Your task to perform on an android device: turn pop-ups off in chrome Image 0: 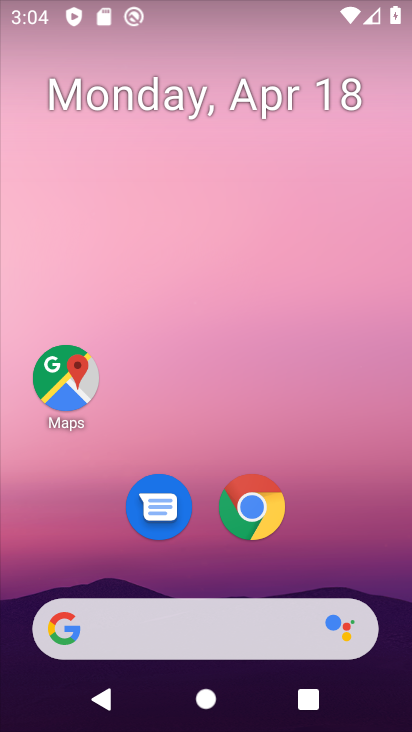
Step 0: click (248, 516)
Your task to perform on an android device: turn pop-ups off in chrome Image 1: 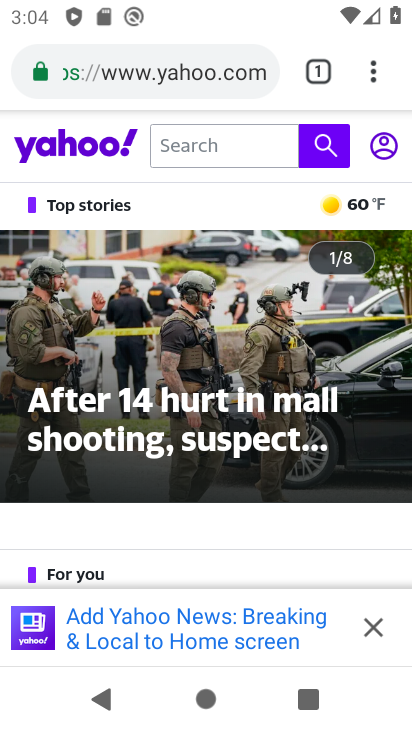
Step 1: click (376, 65)
Your task to perform on an android device: turn pop-ups off in chrome Image 2: 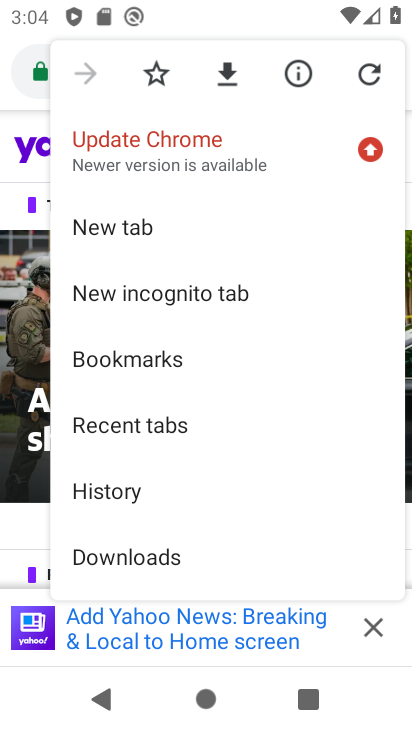
Step 2: drag from (151, 479) to (241, 58)
Your task to perform on an android device: turn pop-ups off in chrome Image 3: 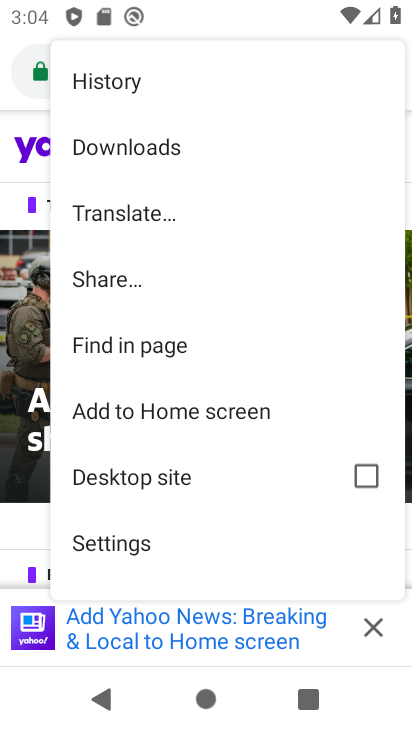
Step 3: click (139, 555)
Your task to perform on an android device: turn pop-ups off in chrome Image 4: 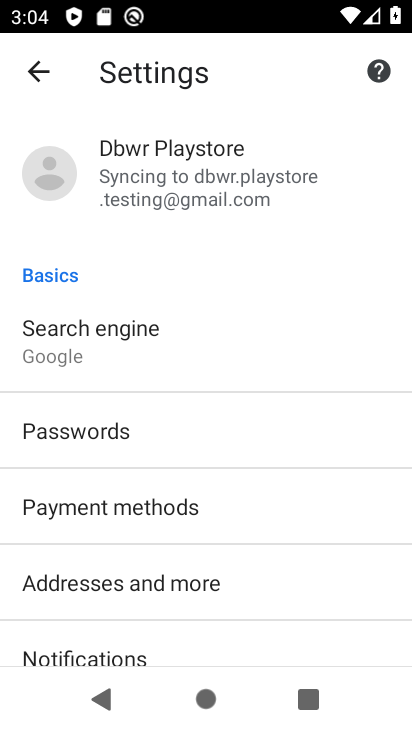
Step 4: drag from (151, 427) to (195, 189)
Your task to perform on an android device: turn pop-ups off in chrome Image 5: 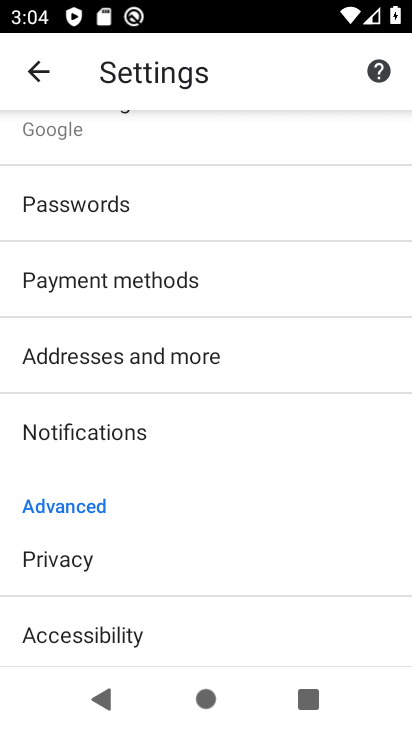
Step 5: drag from (174, 556) to (226, 143)
Your task to perform on an android device: turn pop-ups off in chrome Image 6: 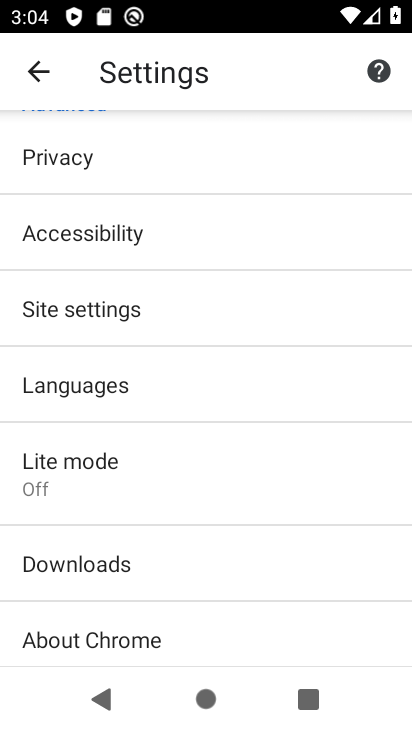
Step 6: drag from (208, 578) to (266, 195)
Your task to perform on an android device: turn pop-ups off in chrome Image 7: 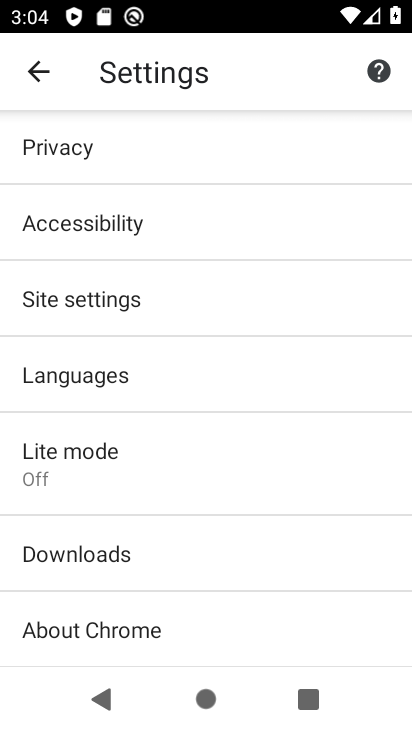
Step 7: click (205, 323)
Your task to perform on an android device: turn pop-ups off in chrome Image 8: 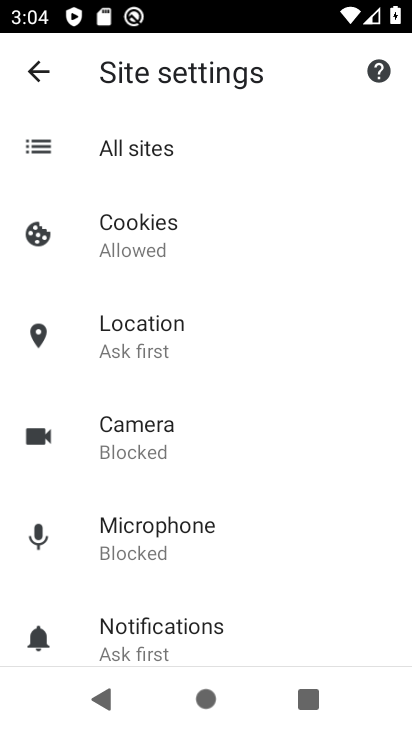
Step 8: drag from (187, 610) to (233, 217)
Your task to perform on an android device: turn pop-ups off in chrome Image 9: 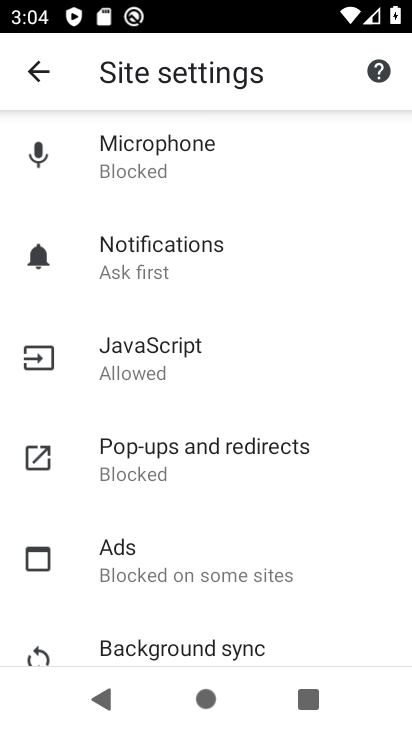
Step 9: drag from (202, 574) to (248, 221)
Your task to perform on an android device: turn pop-ups off in chrome Image 10: 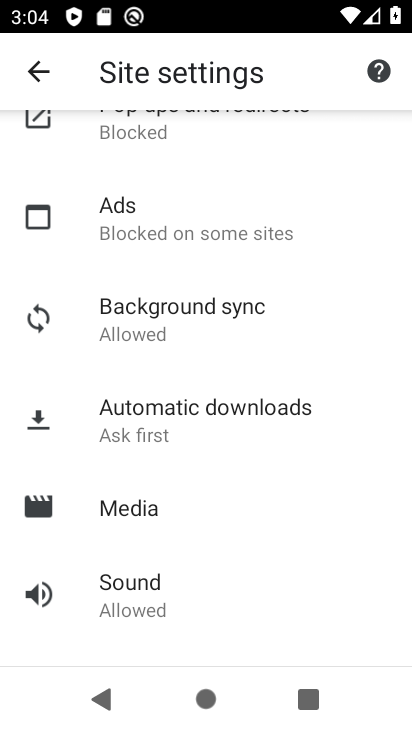
Step 10: drag from (182, 549) to (219, 288)
Your task to perform on an android device: turn pop-ups off in chrome Image 11: 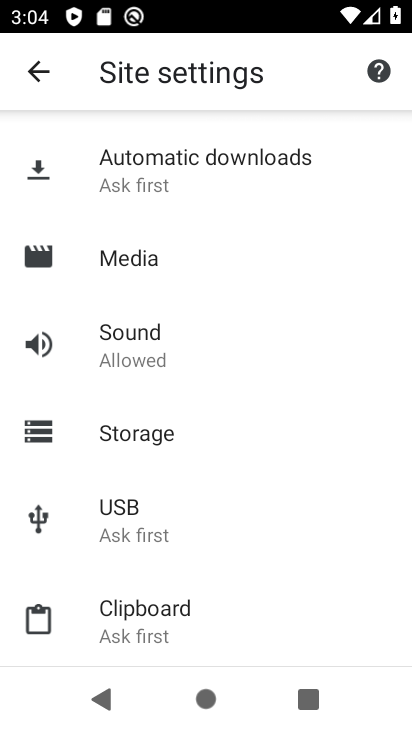
Step 11: drag from (158, 565) to (199, 306)
Your task to perform on an android device: turn pop-ups off in chrome Image 12: 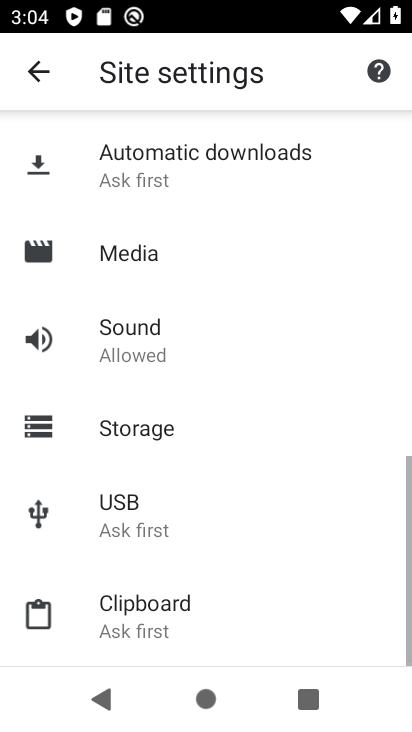
Step 12: drag from (199, 306) to (163, 651)
Your task to perform on an android device: turn pop-ups off in chrome Image 13: 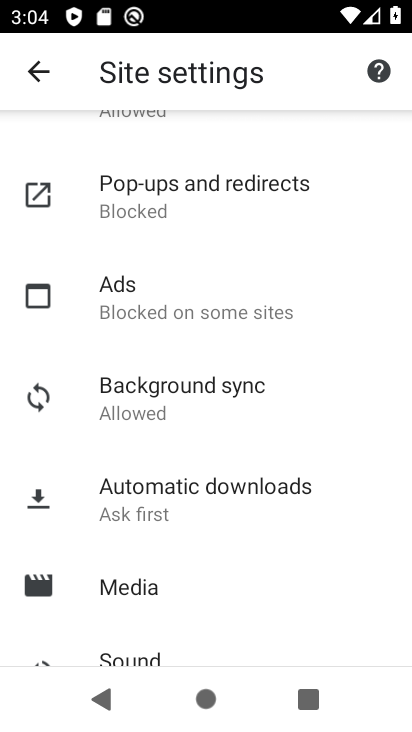
Step 13: click (207, 220)
Your task to perform on an android device: turn pop-ups off in chrome Image 14: 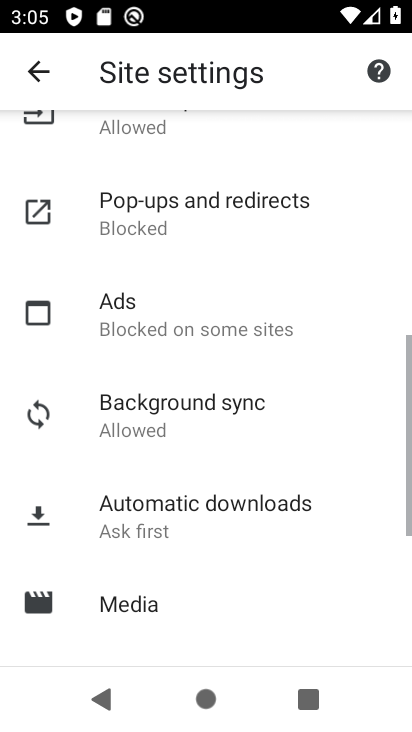
Step 14: click (208, 248)
Your task to perform on an android device: turn pop-ups off in chrome Image 15: 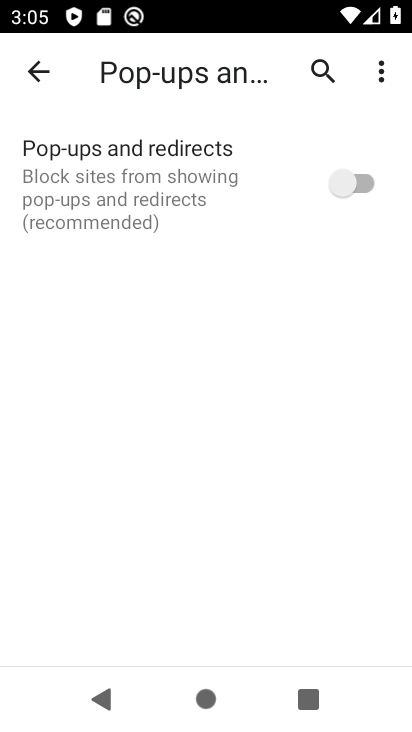
Step 15: task complete